Your task to perform on an android device: Show me the alarms in the clock app Image 0: 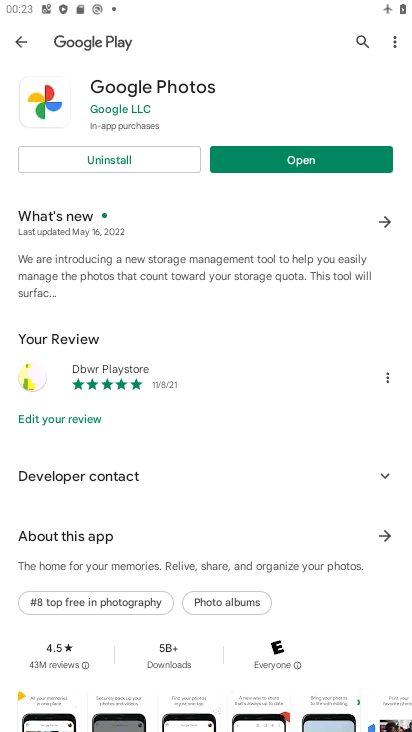
Step 0: press home button
Your task to perform on an android device: Show me the alarms in the clock app Image 1: 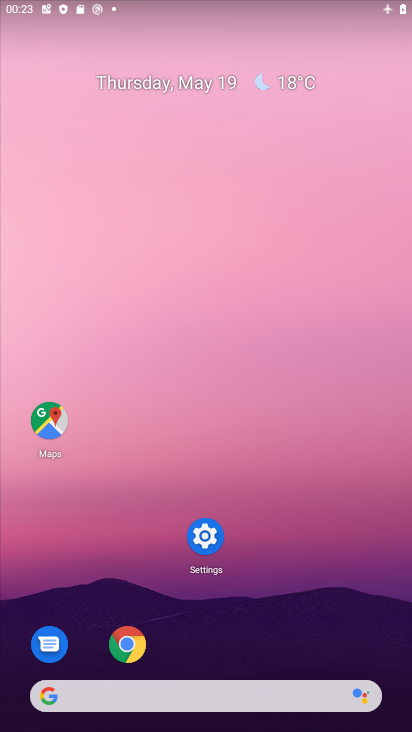
Step 1: drag from (314, 614) to (278, 154)
Your task to perform on an android device: Show me the alarms in the clock app Image 2: 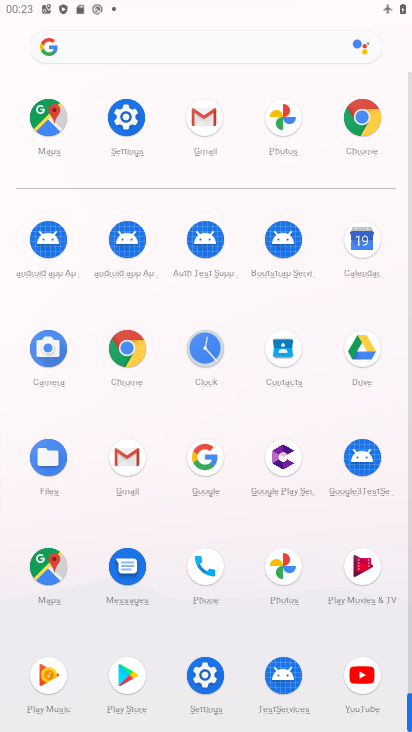
Step 2: click (209, 350)
Your task to perform on an android device: Show me the alarms in the clock app Image 3: 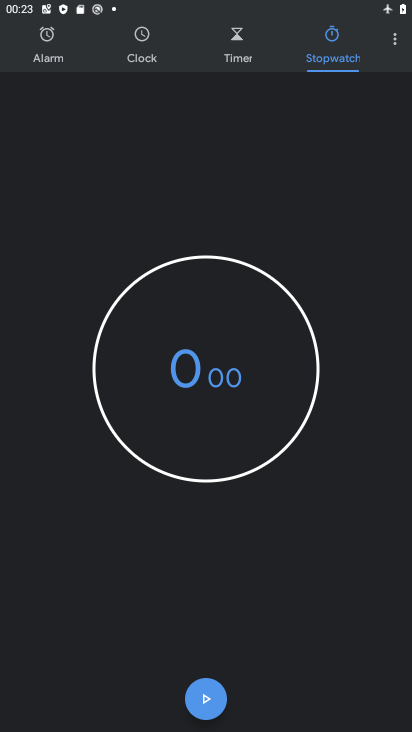
Step 3: click (50, 46)
Your task to perform on an android device: Show me the alarms in the clock app Image 4: 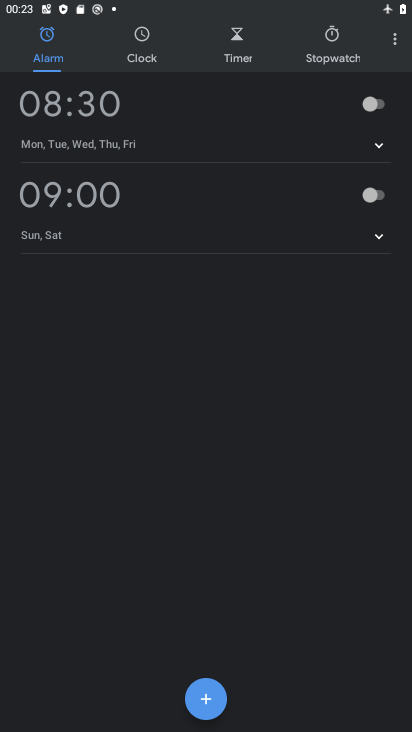
Step 4: task complete